Your task to perform on an android device: toggle javascript in the chrome app Image 0: 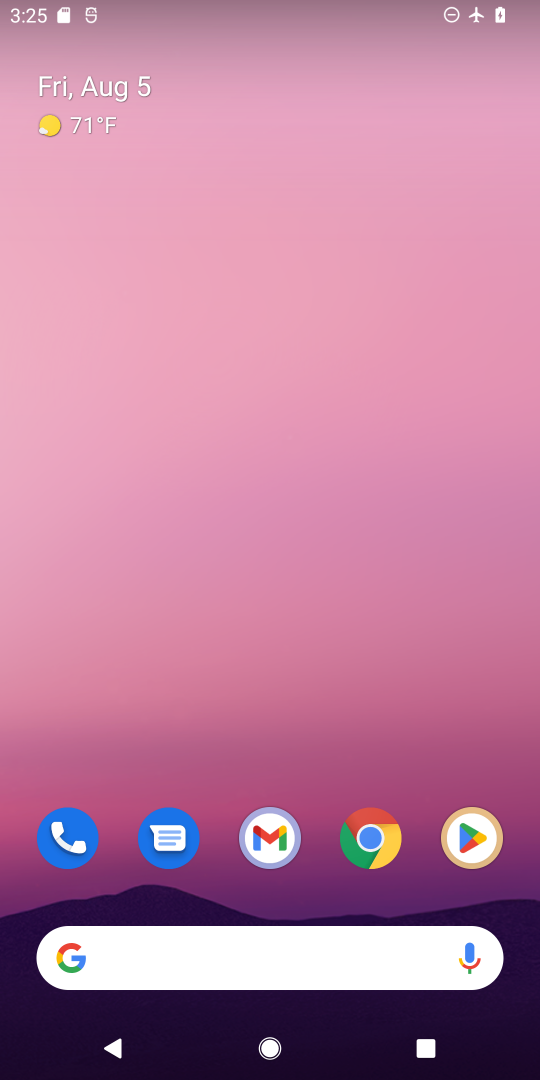
Step 0: drag from (415, 784) to (350, 126)
Your task to perform on an android device: toggle javascript in the chrome app Image 1: 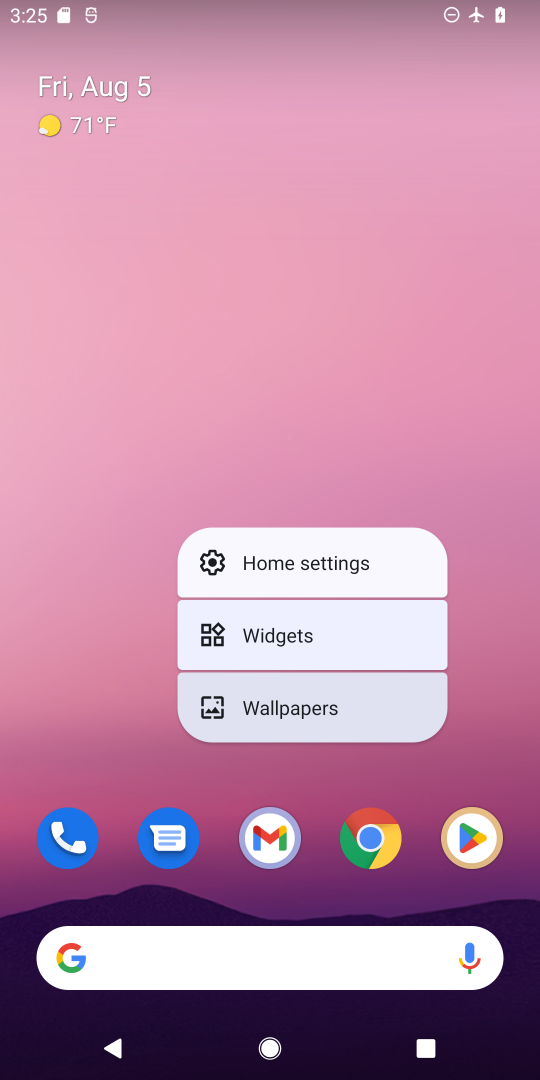
Step 1: click (391, 852)
Your task to perform on an android device: toggle javascript in the chrome app Image 2: 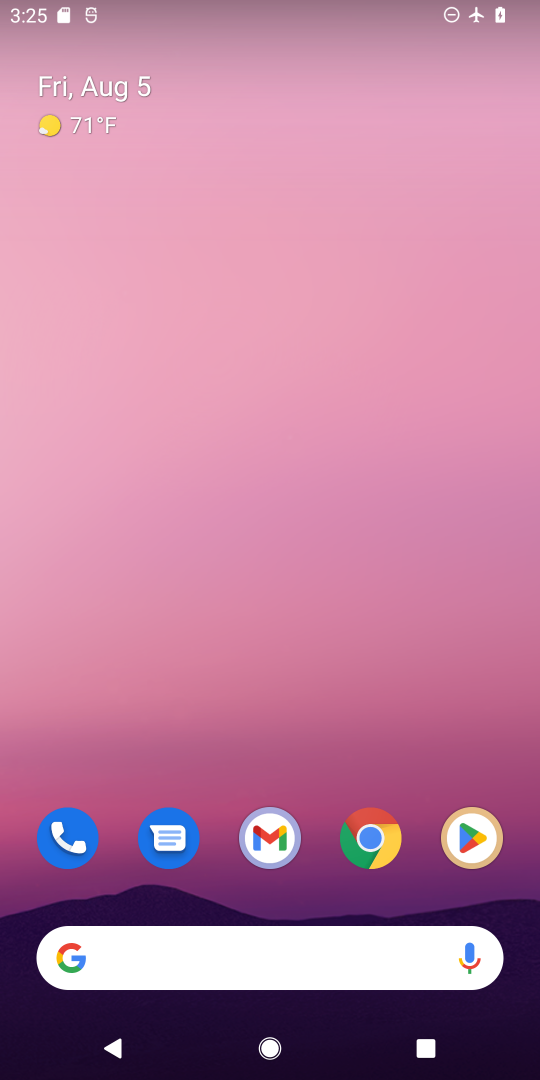
Step 2: click (384, 836)
Your task to perform on an android device: toggle javascript in the chrome app Image 3: 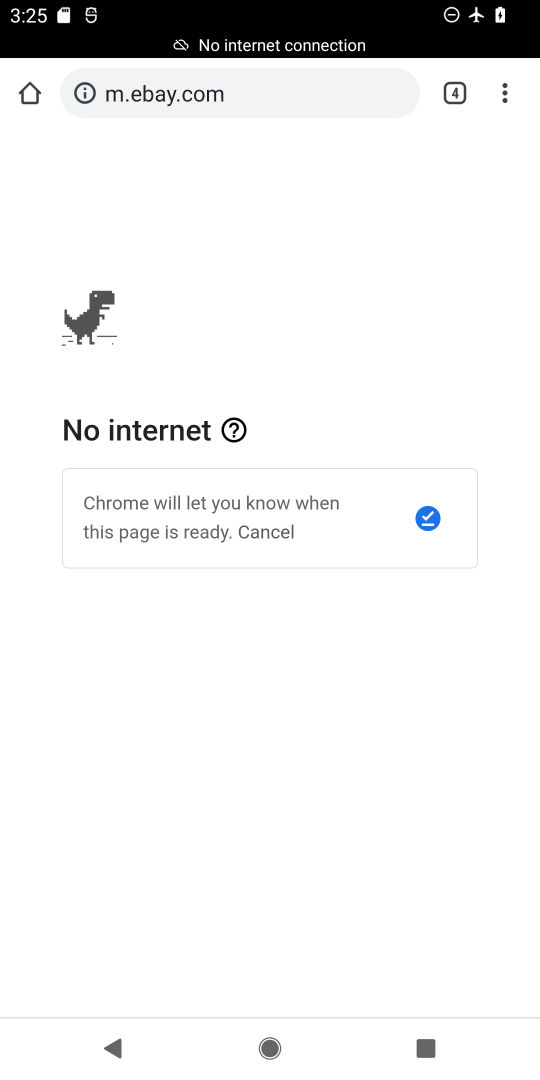
Step 3: click (506, 95)
Your task to perform on an android device: toggle javascript in the chrome app Image 4: 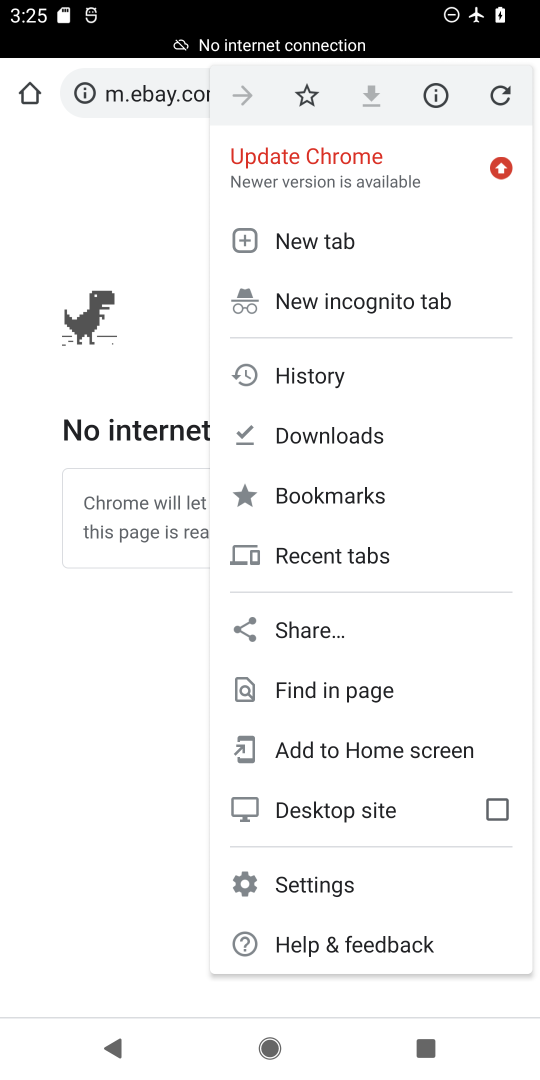
Step 4: click (328, 898)
Your task to perform on an android device: toggle javascript in the chrome app Image 5: 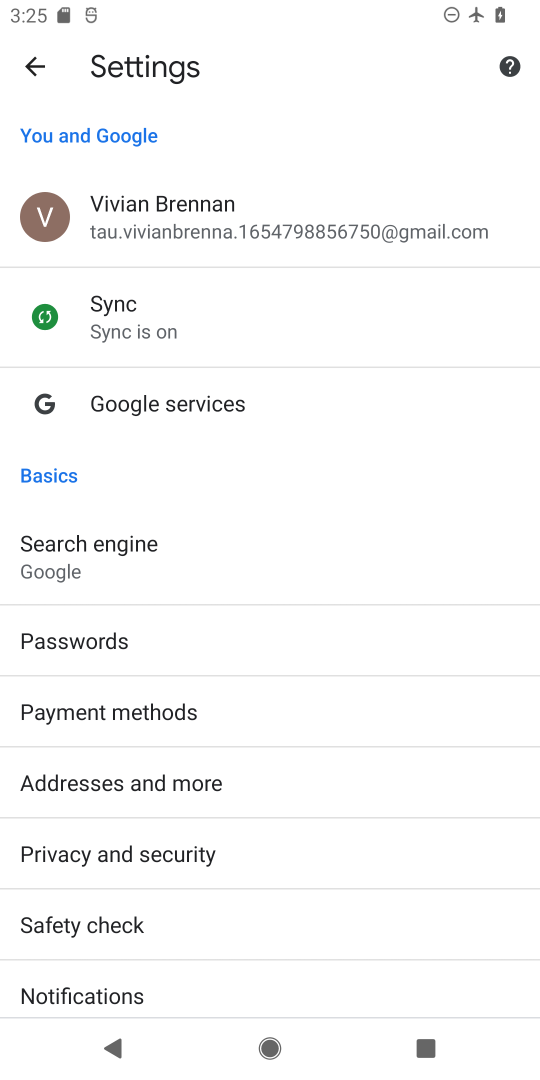
Step 5: drag from (328, 898) to (323, 188)
Your task to perform on an android device: toggle javascript in the chrome app Image 6: 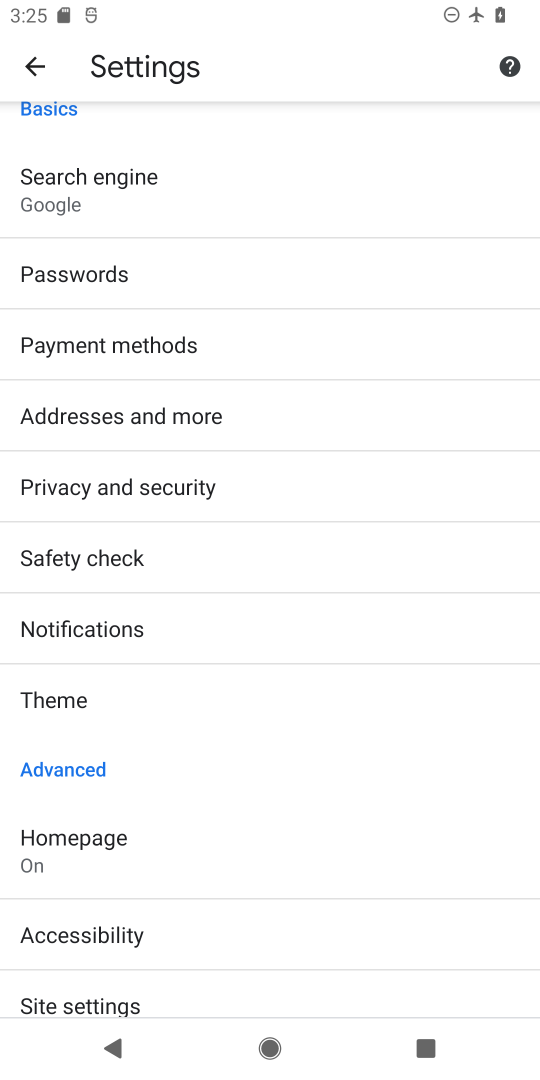
Step 6: drag from (306, 1007) to (330, 526)
Your task to perform on an android device: toggle javascript in the chrome app Image 7: 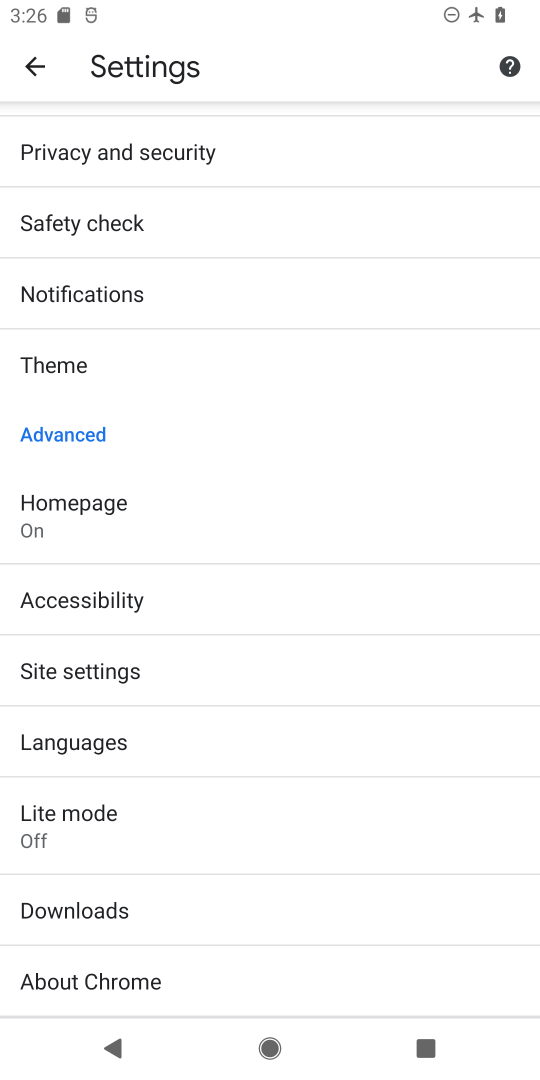
Step 7: click (344, 670)
Your task to perform on an android device: toggle javascript in the chrome app Image 8: 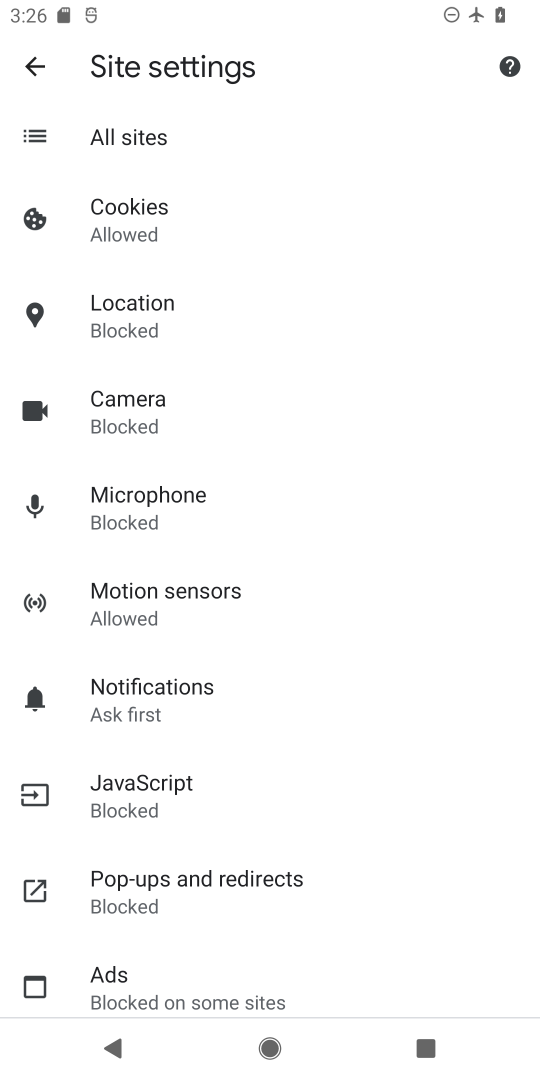
Step 8: click (289, 811)
Your task to perform on an android device: toggle javascript in the chrome app Image 9: 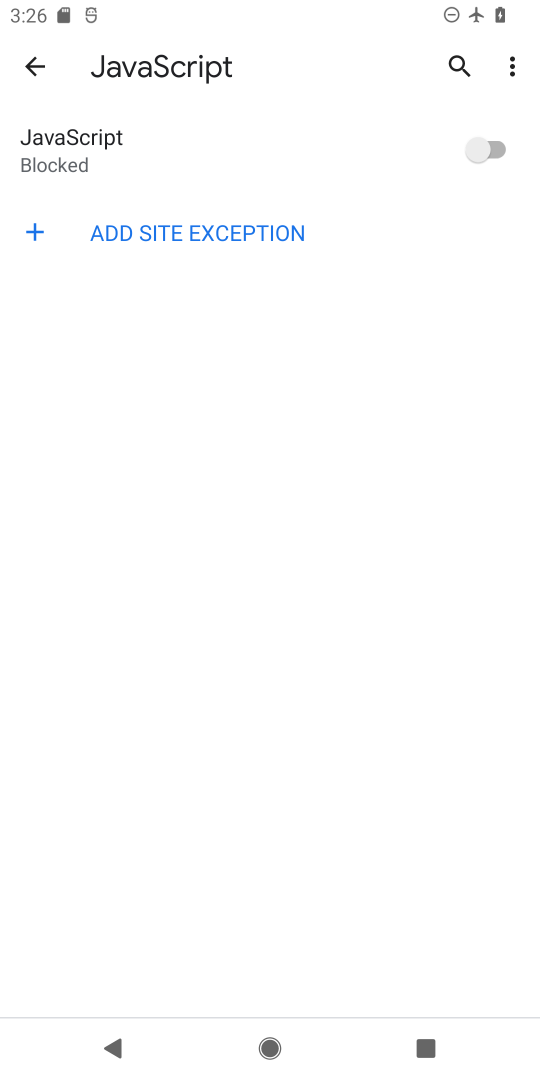
Step 9: click (500, 161)
Your task to perform on an android device: toggle javascript in the chrome app Image 10: 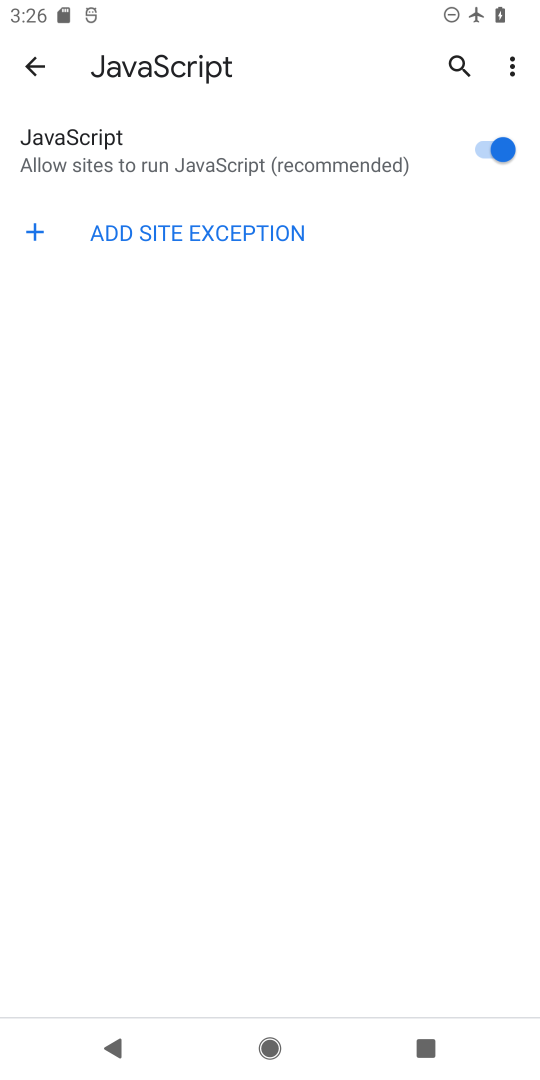
Step 10: task complete